Your task to perform on an android device: Open Chrome and go to settings Image 0: 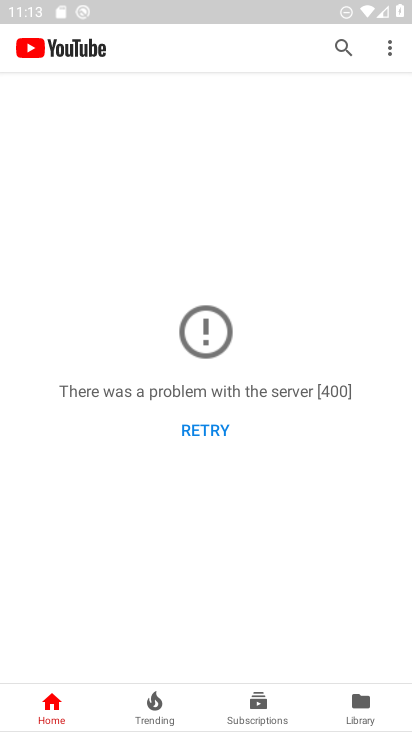
Step 0: press back button
Your task to perform on an android device: Open Chrome and go to settings Image 1: 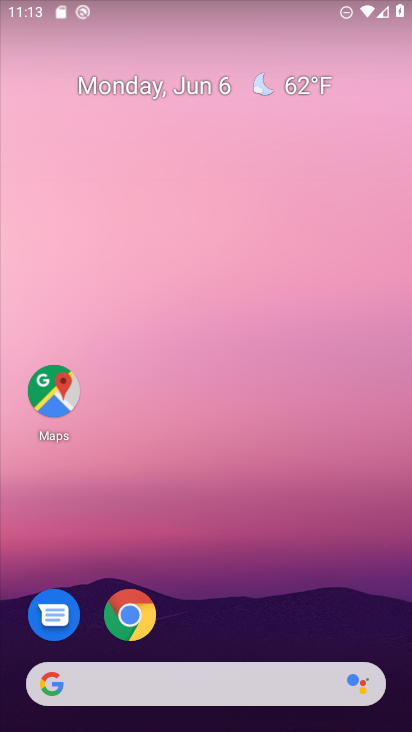
Step 1: click (143, 617)
Your task to perform on an android device: Open Chrome and go to settings Image 2: 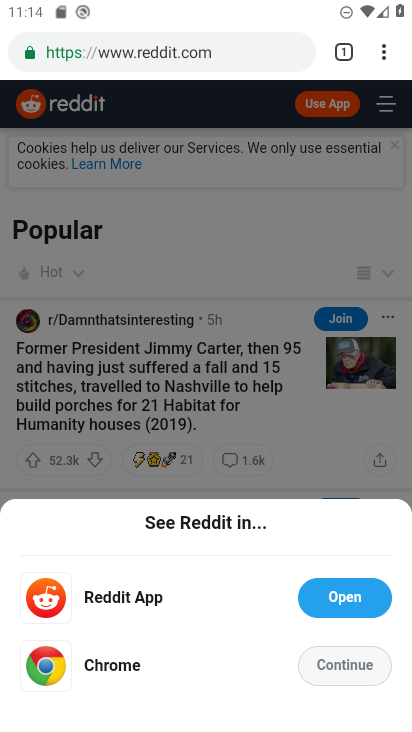
Step 2: task complete